Your task to perform on an android device: Search for vegetarian restaurants on Maps Image 0: 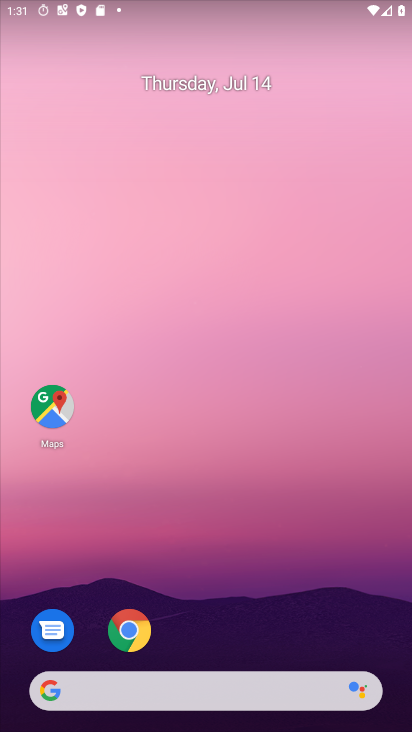
Step 0: drag from (225, 697) to (202, 259)
Your task to perform on an android device: Search for vegetarian restaurants on Maps Image 1: 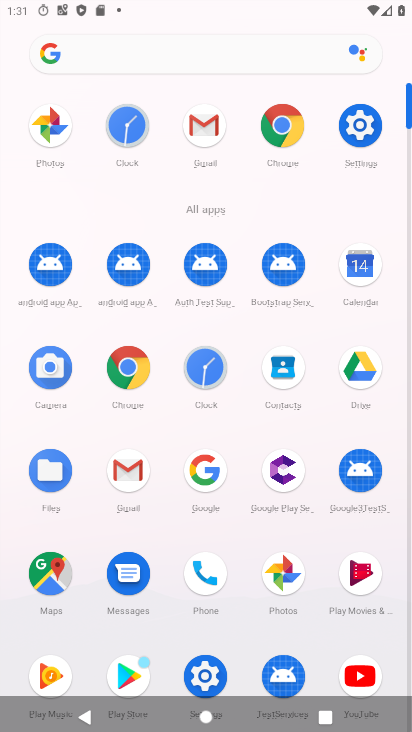
Step 1: click (64, 582)
Your task to perform on an android device: Search for vegetarian restaurants on Maps Image 2: 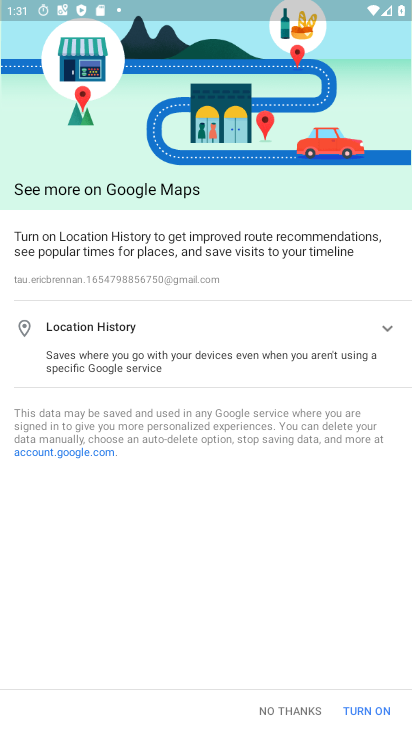
Step 2: click (353, 710)
Your task to perform on an android device: Search for vegetarian restaurants on Maps Image 3: 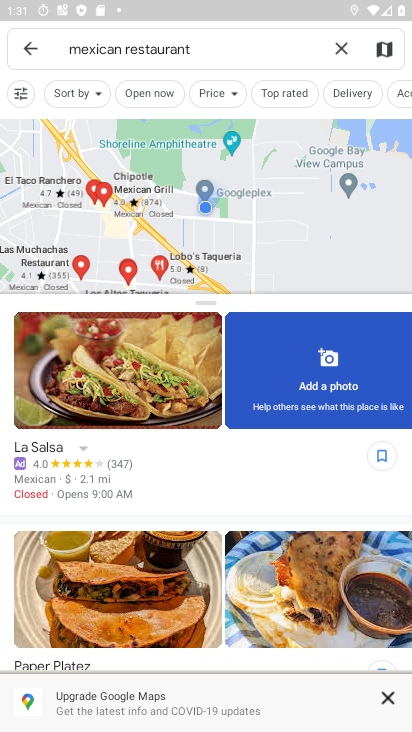
Step 3: click (346, 49)
Your task to perform on an android device: Search for vegetarian restaurants on Maps Image 4: 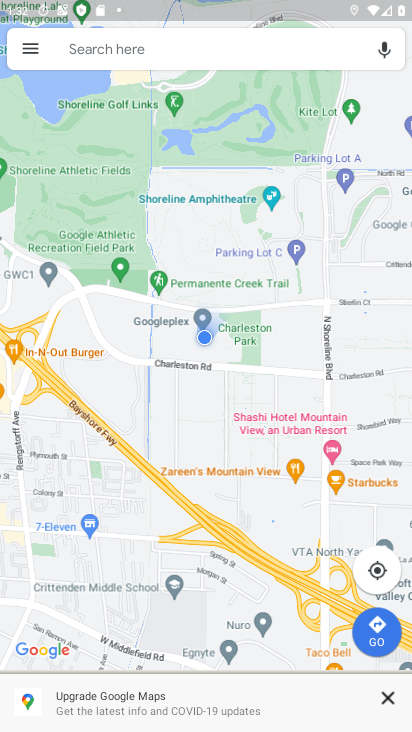
Step 4: click (168, 53)
Your task to perform on an android device: Search for vegetarian restaurants on Maps Image 5: 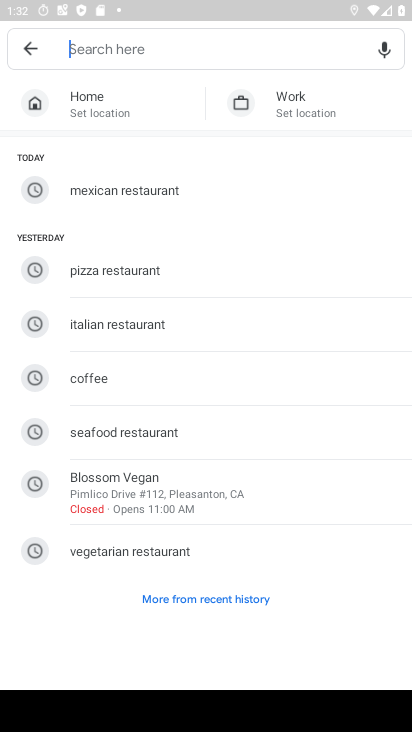
Step 5: type "vegetarian "
Your task to perform on an android device: Search for vegetarian restaurants on Maps Image 6: 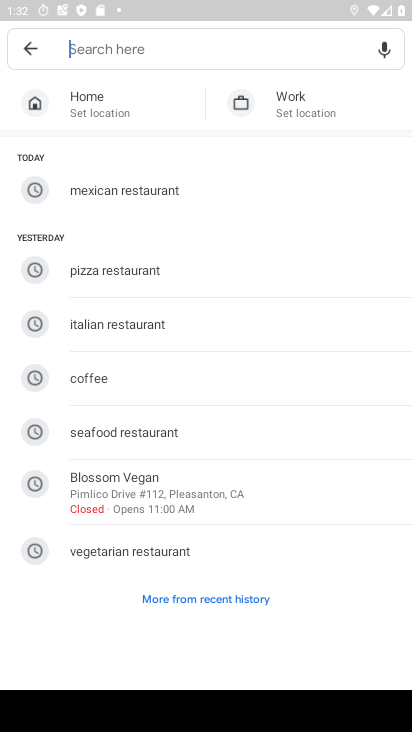
Step 6: click (197, 546)
Your task to perform on an android device: Search for vegetarian restaurants on Maps Image 7: 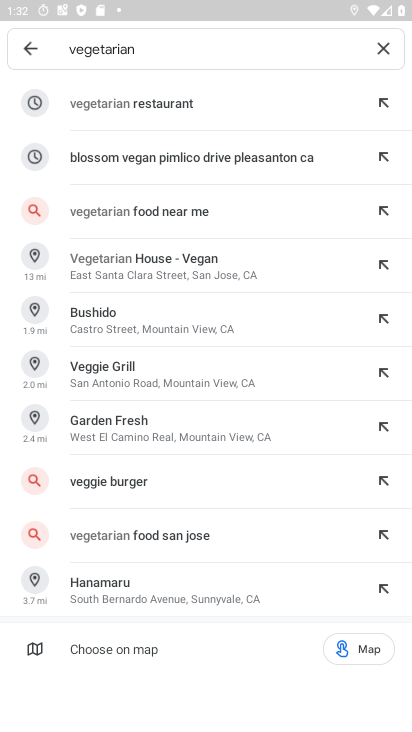
Step 7: click (178, 96)
Your task to perform on an android device: Search for vegetarian restaurants on Maps Image 8: 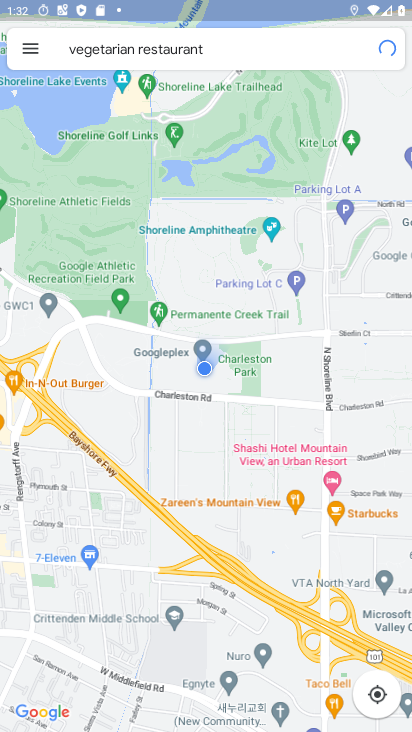
Step 8: task complete